Your task to perform on an android device: Add sony triple a to the cart on amazon, then select checkout. Image 0: 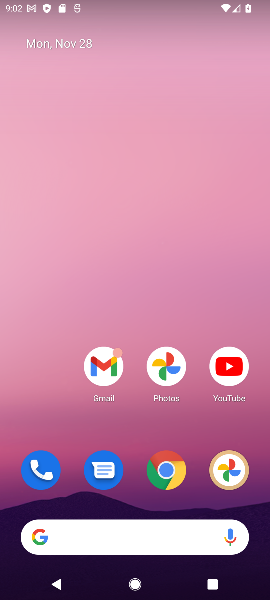
Step 0: drag from (134, 484) to (118, 77)
Your task to perform on an android device: Add sony triple a to the cart on amazon, then select checkout. Image 1: 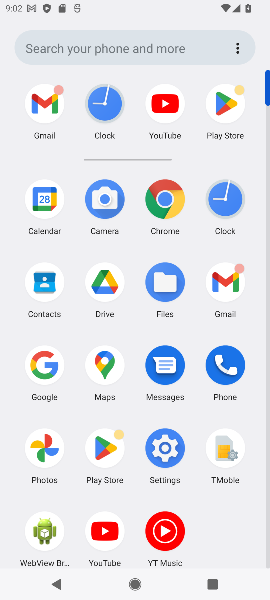
Step 1: click (50, 372)
Your task to perform on an android device: Add sony triple a to the cart on amazon, then select checkout. Image 2: 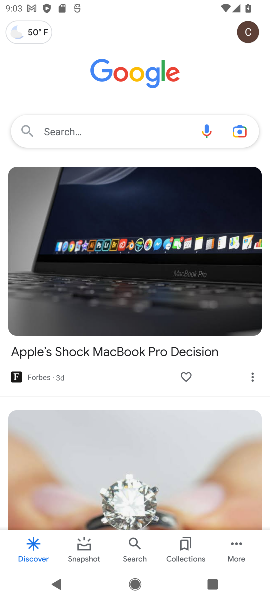
Step 2: click (153, 120)
Your task to perform on an android device: Add sony triple a to the cart on amazon, then select checkout. Image 3: 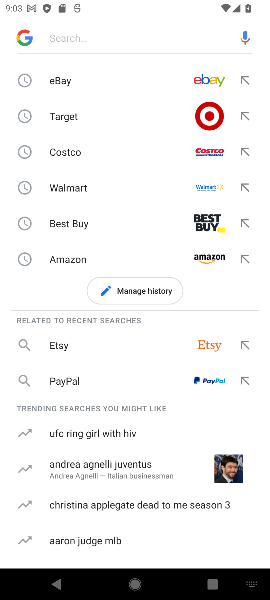
Step 3: click (83, 258)
Your task to perform on an android device: Add sony triple a to the cart on amazon, then select checkout. Image 4: 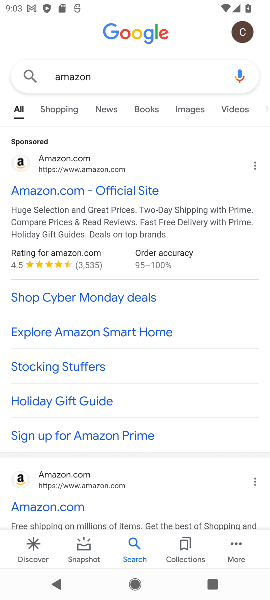
Step 4: click (42, 503)
Your task to perform on an android device: Add sony triple a to the cart on amazon, then select checkout. Image 5: 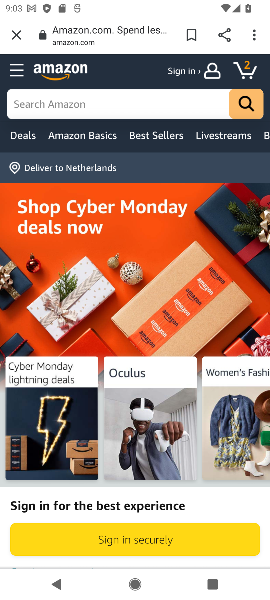
Step 5: click (111, 102)
Your task to perform on an android device: Add sony triple a to the cart on amazon, then select checkout. Image 6: 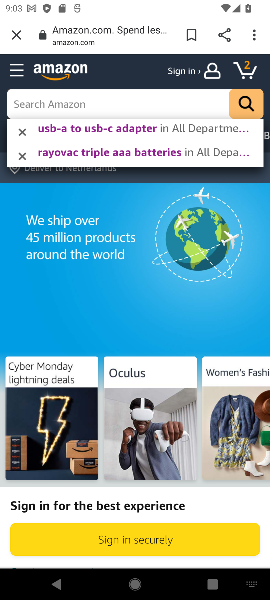
Step 6: type "sony triple a"
Your task to perform on an android device: Add sony triple a to the cart on amazon, then select checkout. Image 7: 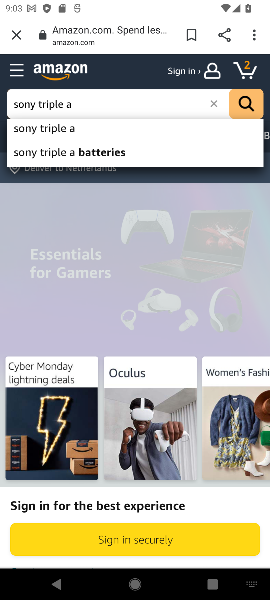
Step 7: click (67, 128)
Your task to perform on an android device: Add sony triple a to the cart on amazon, then select checkout. Image 8: 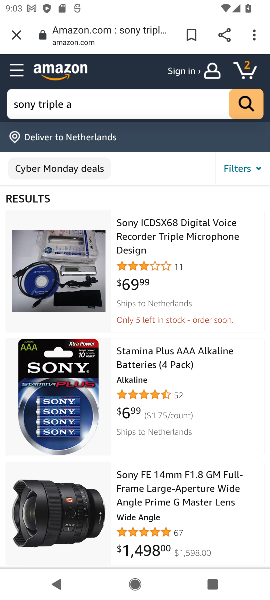
Step 8: click (135, 349)
Your task to perform on an android device: Add sony triple a to the cart on amazon, then select checkout. Image 9: 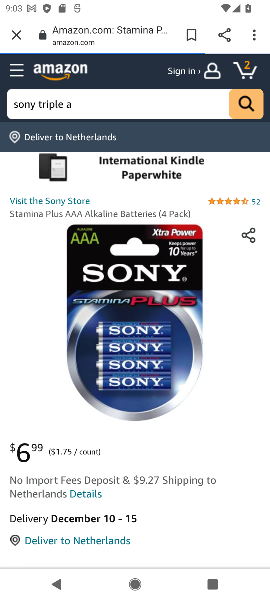
Step 9: drag from (172, 411) to (172, 237)
Your task to perform on an android device: Add sony triple a to the cart on amazon, then select checkout. Image 10: 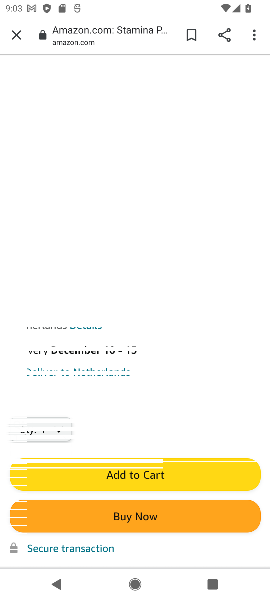
Step 10: click (139, 469)
Your task to perform on an android device: Add sony triple a to the cart on amazon, then select checkout. Image 11: 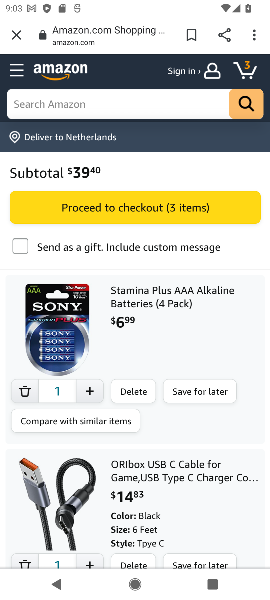
Step 11: click (142, 202)
Your task to perform on an android device: Add sony triple a to the cart on amazon, then select checkout. Image 12: 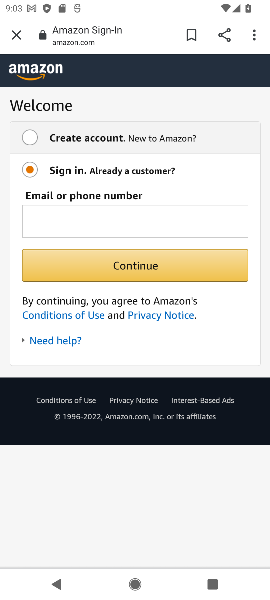
Step 12: task complete